Your task to perform on an android device: open the mobile data screen to see how much data has been used Image 0: 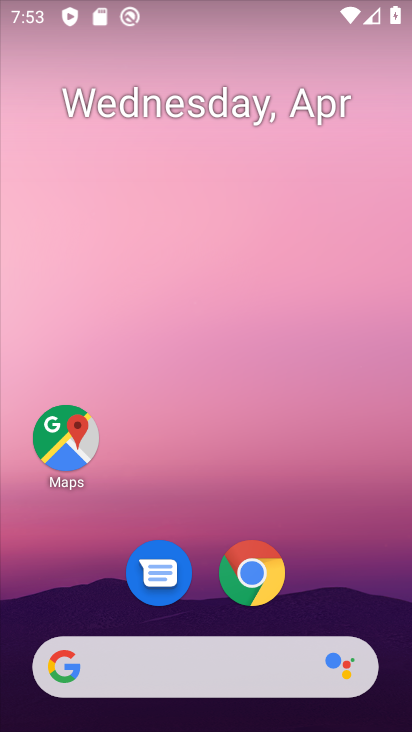
Step 0: drag from (68, 508) to (248, 187)
Your task to perform on an android device: open the mobile data screen to see how much data has been used Image 1: 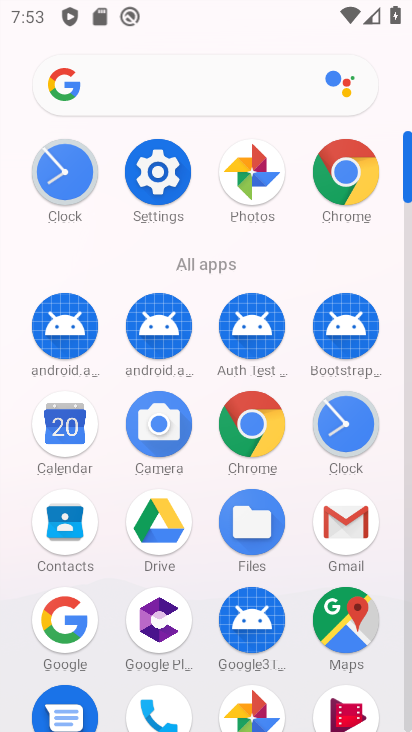
Step 1: click (171, 180)
Your task to perform on an android device: open the mobile data screen to see how much data has been used Image 2: 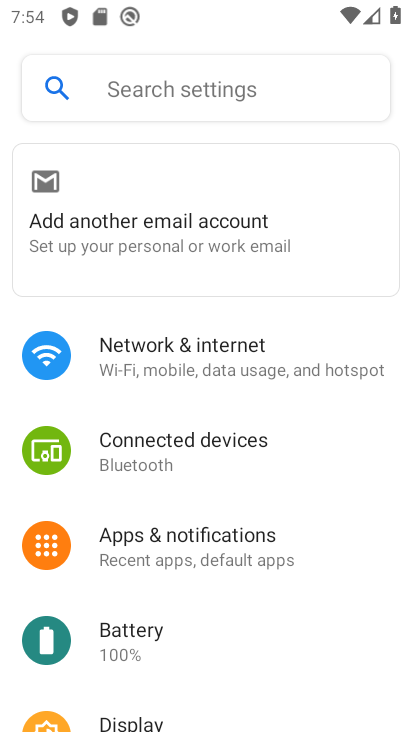
Step 2: click (258, 343)
Your task to perform on an android device: open the mobile data screen to see how much data has been used Image 3: 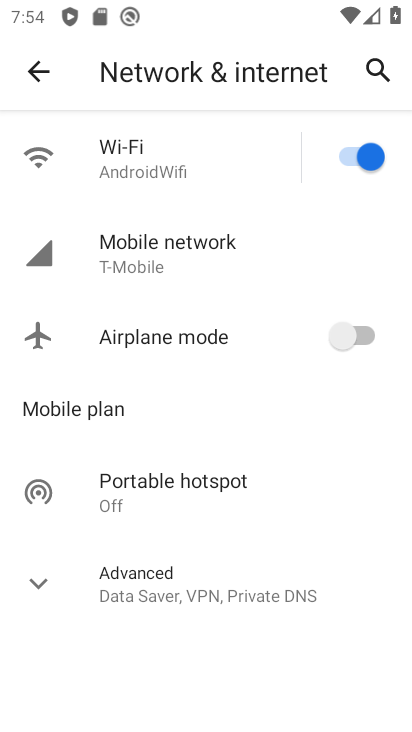
Step 3: click (220, 250)
Your task to perform on an android device: open the mobile data screen to see how much data has been used Image 4: 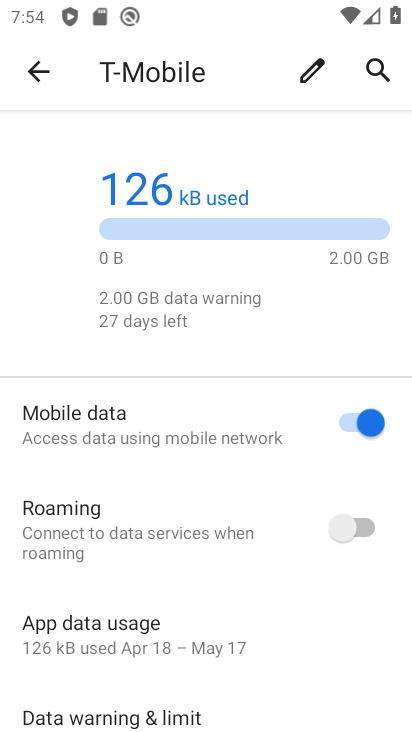
Step 4: click (232, 206)
Your task to perform on an android device: open the mobile data screen to see how much data has been used Image 5: 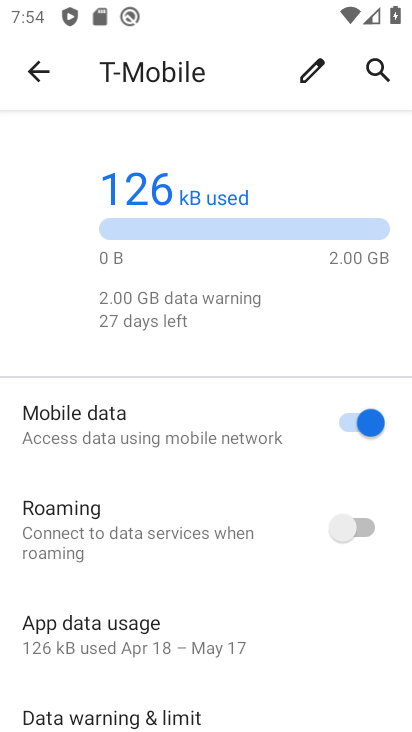
Step 5: task complete